Your task to perform on an android device: delete the emails in spam in the gmail app Image 0: 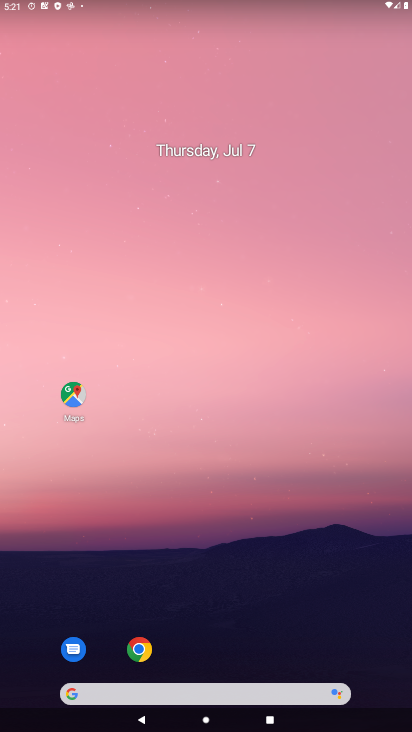
Step 0: drag from (346, 681) to (219, 78)
Your task to perform on an android device: delete the emails in spam in the gmail app Image 1: 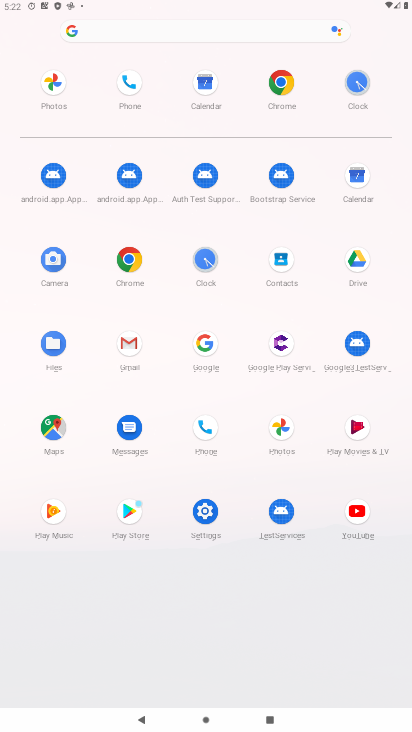
Step 1: click (126, 352)
Your task to perform on an android device: delete the emails in spam in the gmail app Image 2: 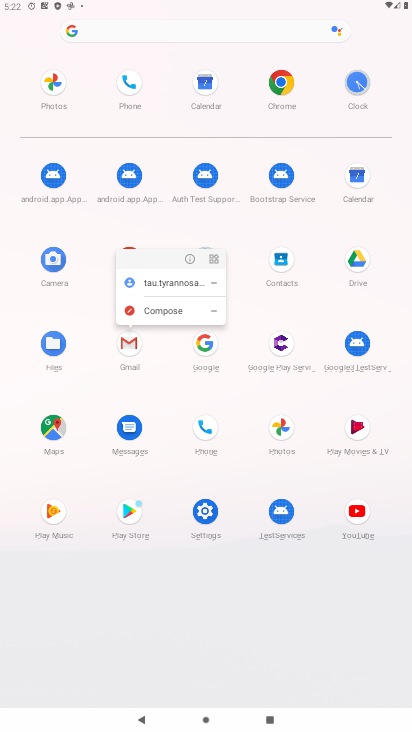
Step 2: click (129, 357)
Your task to perform on an android device: delete the emails in spam in the gmail app Image 3: 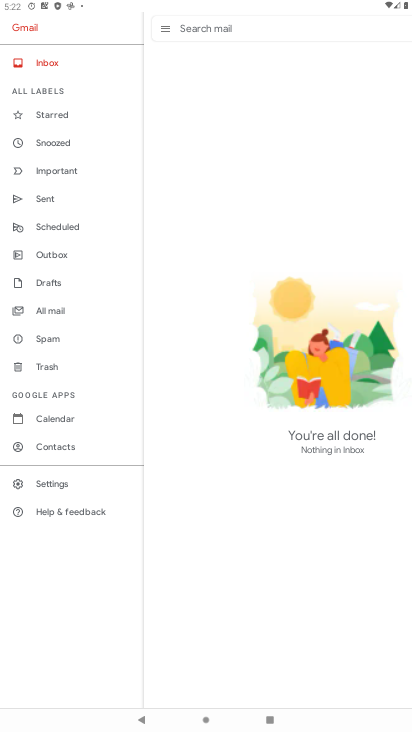
Step 3: task complete